Your task to perform on an android device: Open calendar and show me the first week of next month Image 0: 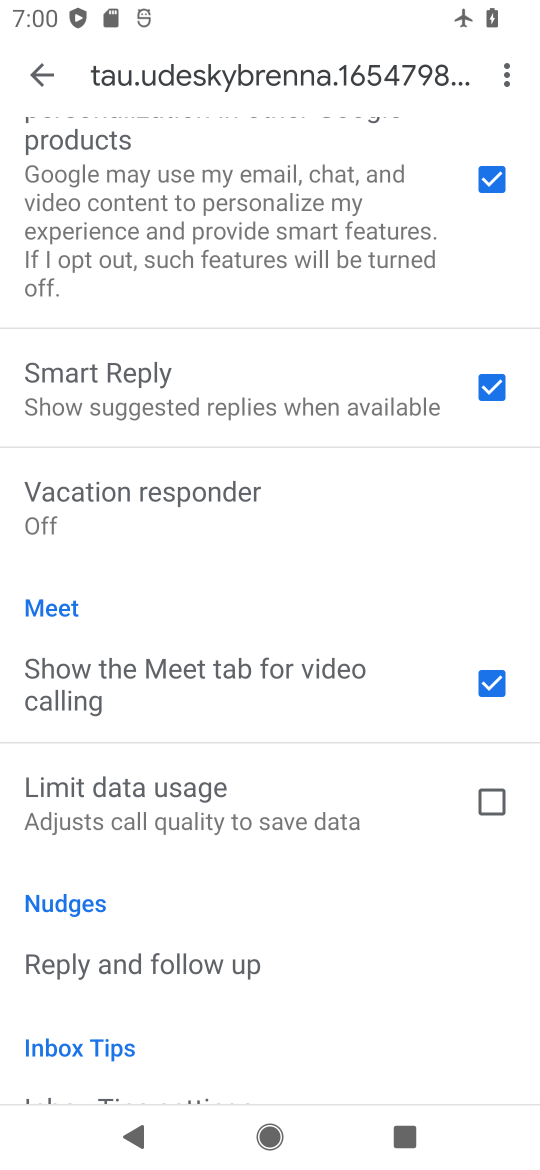
Step 0: press home button
Your task to perform on an android device: Open calendar and show me the first week of next month Image 1: 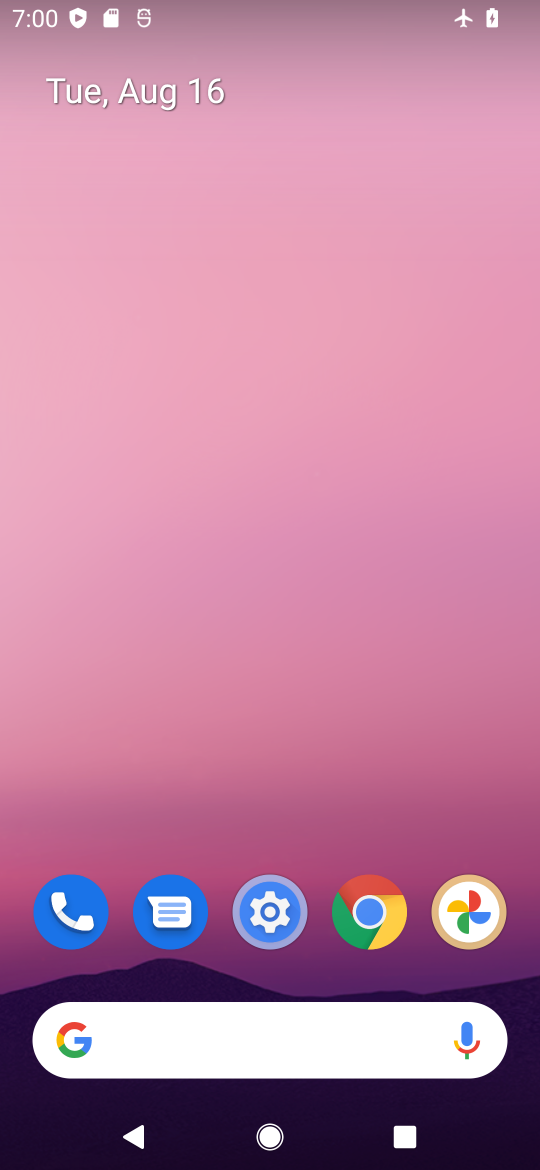
Step 1: drag from (422, 964) to (399, 237)
Your task to perform on an android device: Open calendar and show me the first week of next month Image 2: 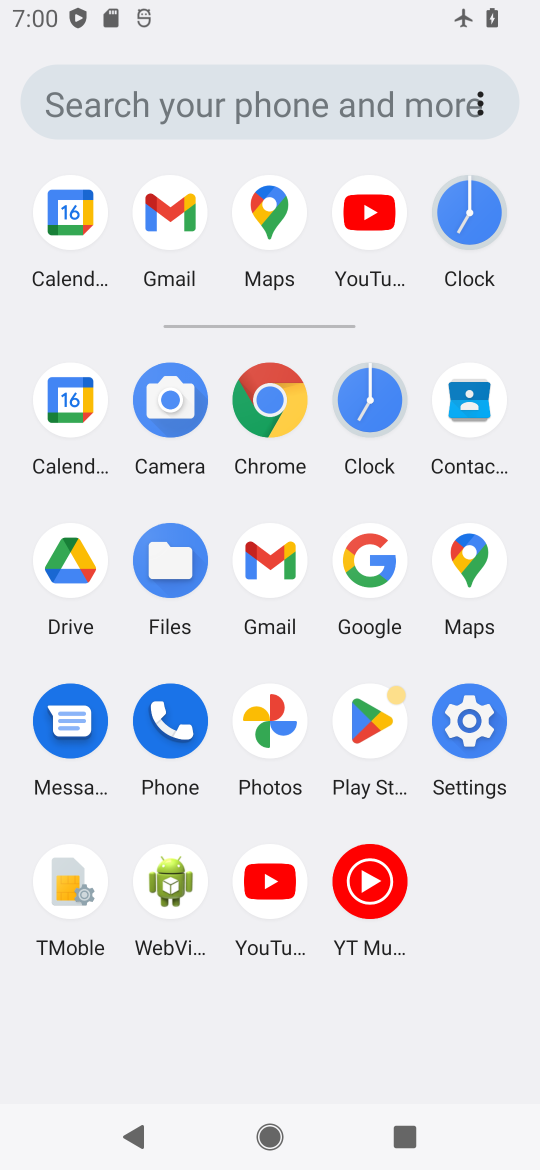
Step 2: click (67, 400)
Your task to perform on an android device: Open calendar and show me the first week of next month Image 3: 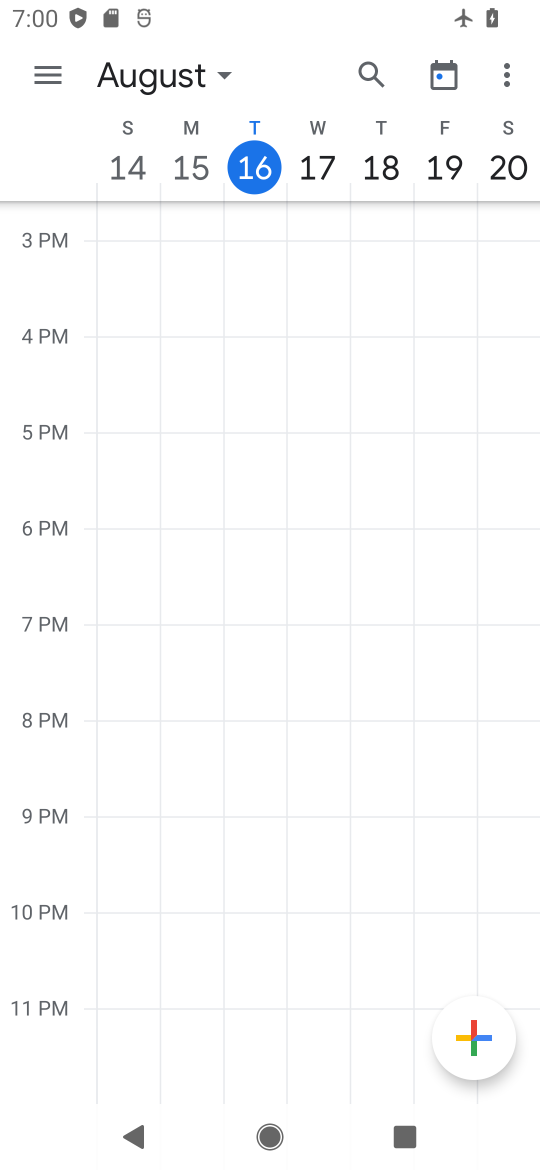
Step 3: click (222, 77)
Your task to perform on an android device: Open calendar and show me the first week of next month Image 4: 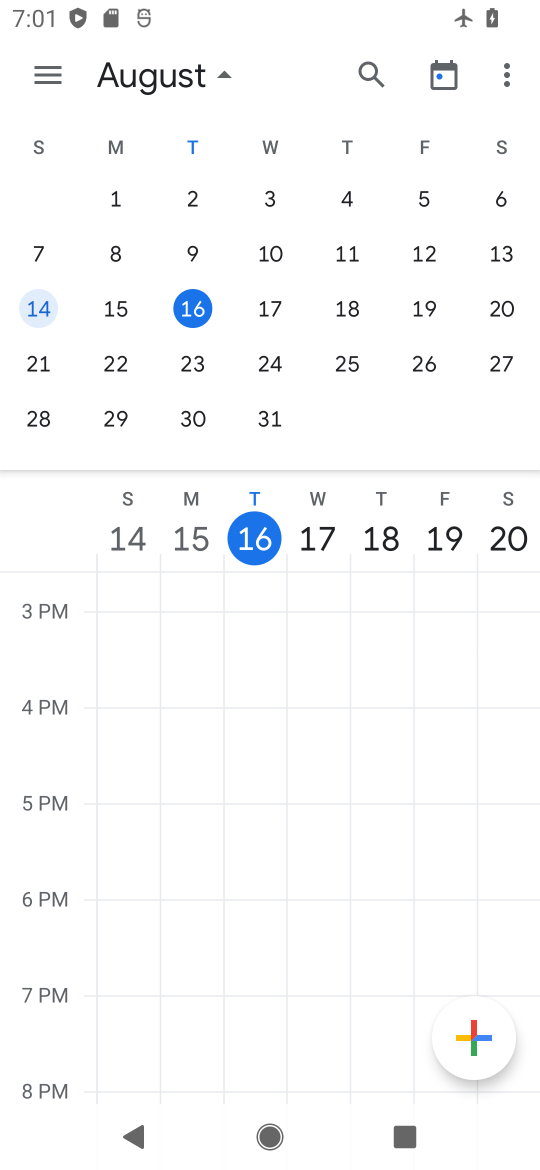
Step 4: drag from (496, 297) to (1, 228)
Your task to perform on an android device: Open calendar and show me the first week of next month Image 5: 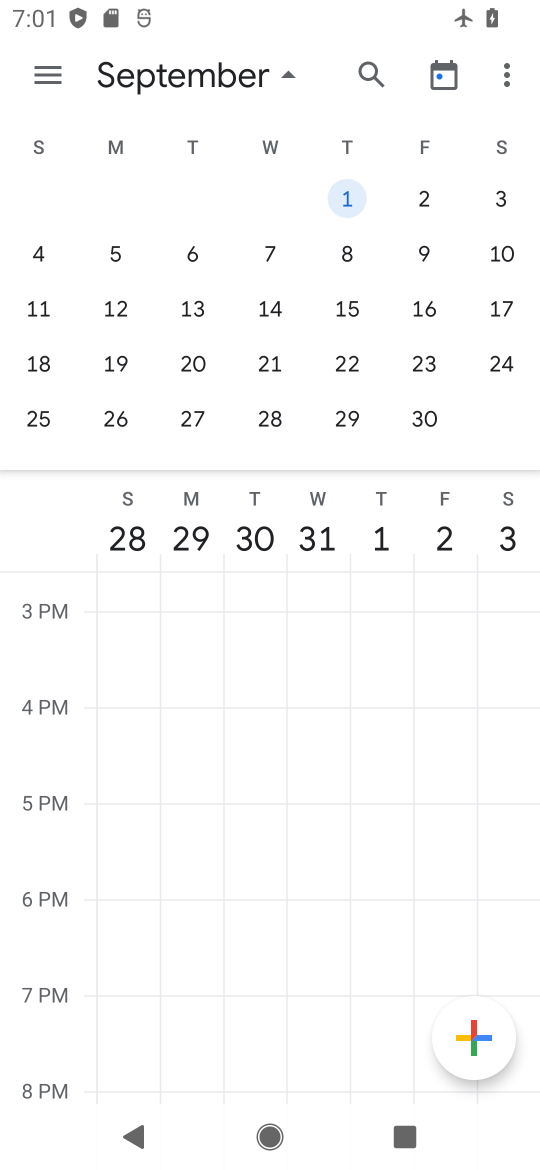
Step 5: click (37, 251)
Your task to perform on an android device: Open calendar and show me the first week of next month Image 6: 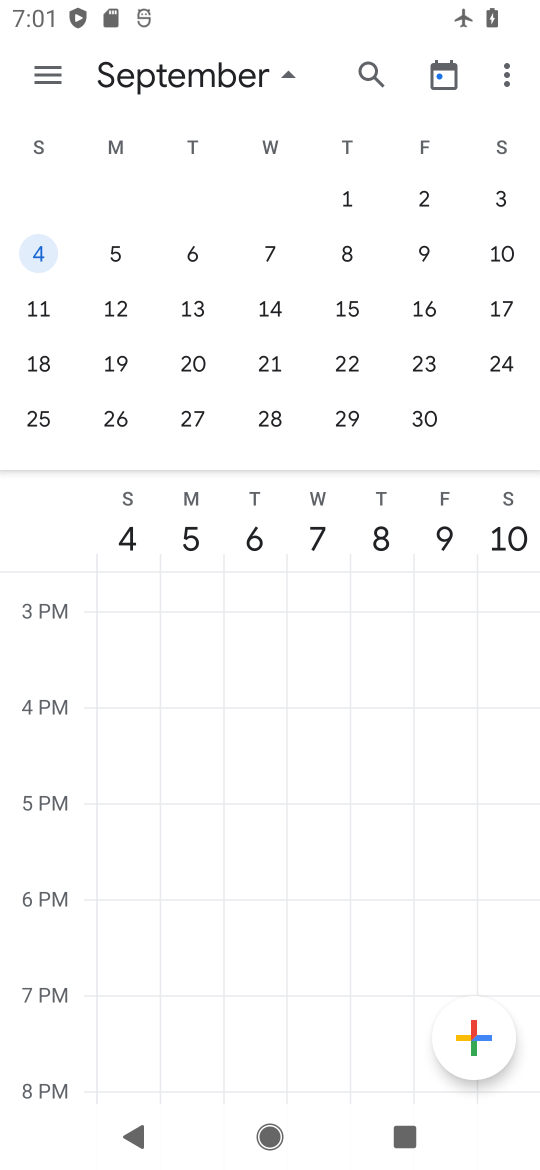
Step 6: task complete